Your task to perform on an android device: turn notification dots on Image 0: 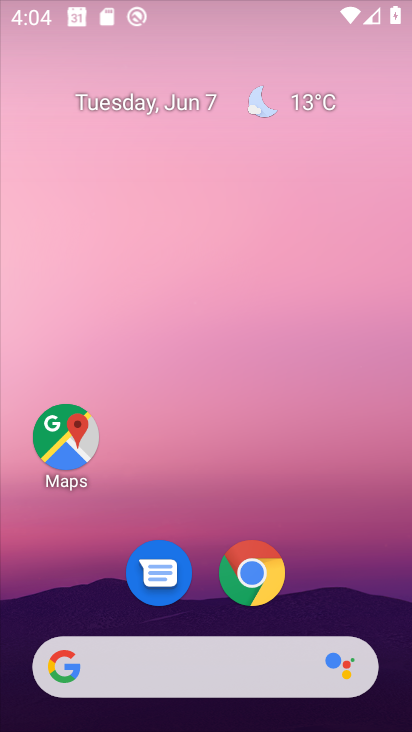
Step 0: press home button
Your task to perform on an android device: turn notification dots on Image 1: 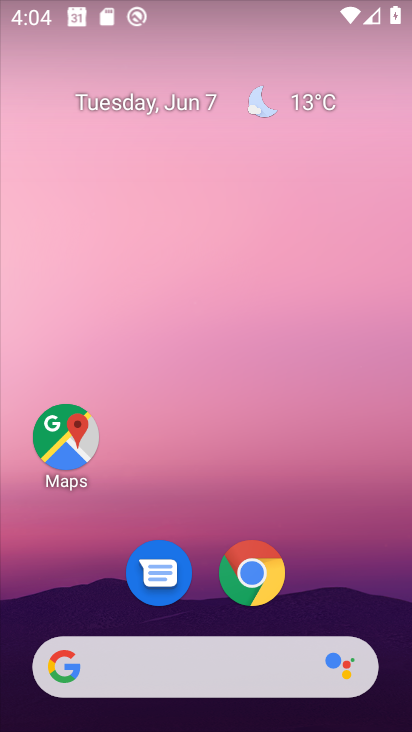
Step 1: drag from (408, 715) to (384, 271)
Your task to perform on an android device: turn notification dots on Image 2: 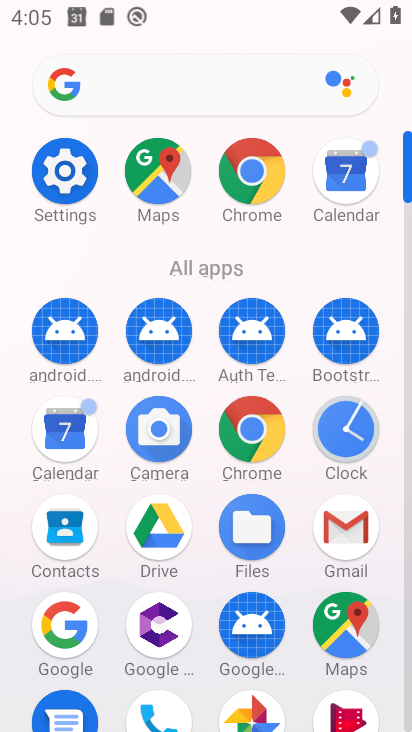
Step 2: click (53, 199)
Your task to perform on an android device: turn notification dots on Image 3: 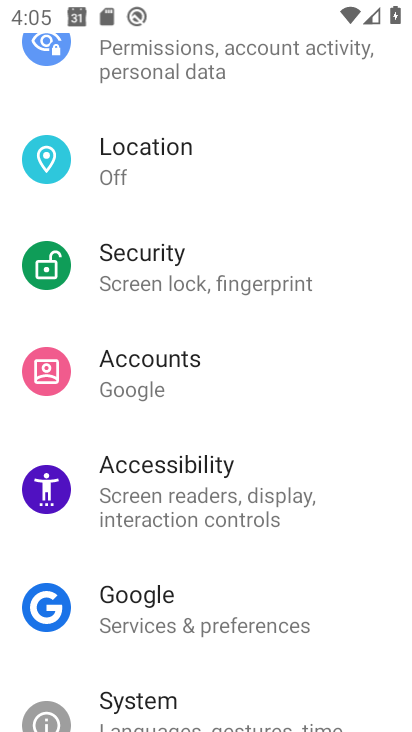
Step 3: drag from (223, 132) to (308, 684)
Your task to perform on an android device: turn notification dots on Image 4: 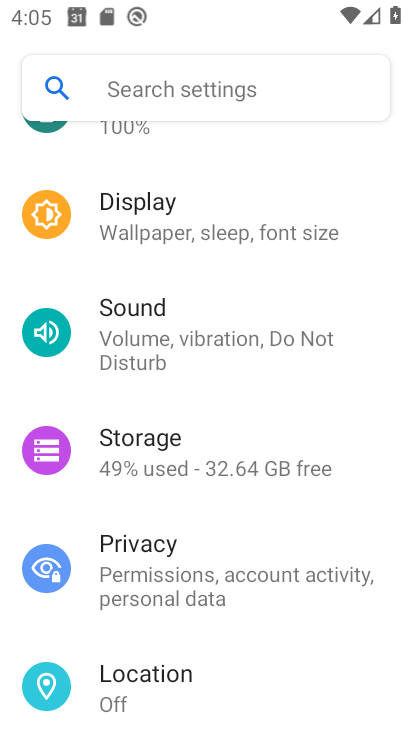
Step 4: drag from (178, 238) to (171, 724)
Your task to perform on an android device: turn notification dots on Image 5: 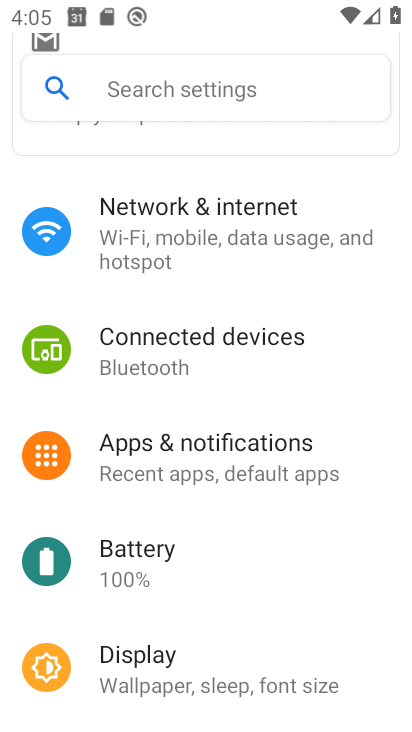
Step 5: click (150, 472)
Your task to perform on an android device: turn notification dots on Image 6: 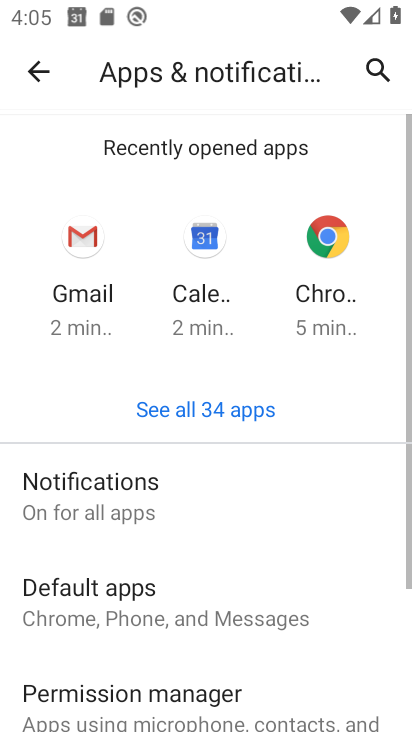
Step 6: click (153, 486)
Your task to perform on an android device: turn notification dots on Image 7: 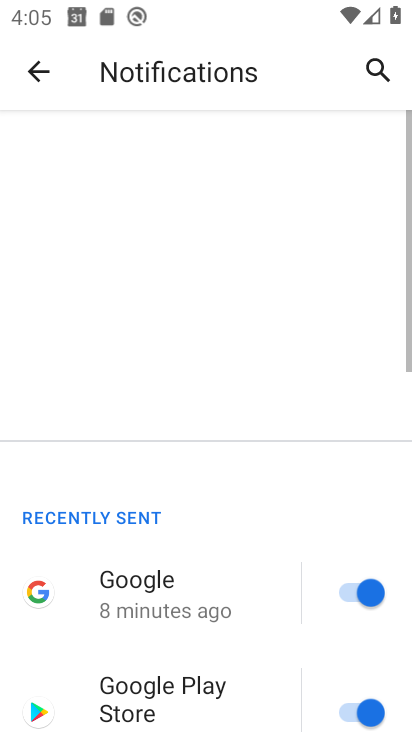
Step 7: drag from (222, 561) to (222, 83)
Your task to perform on an android device: turn notification dots on Image 8: 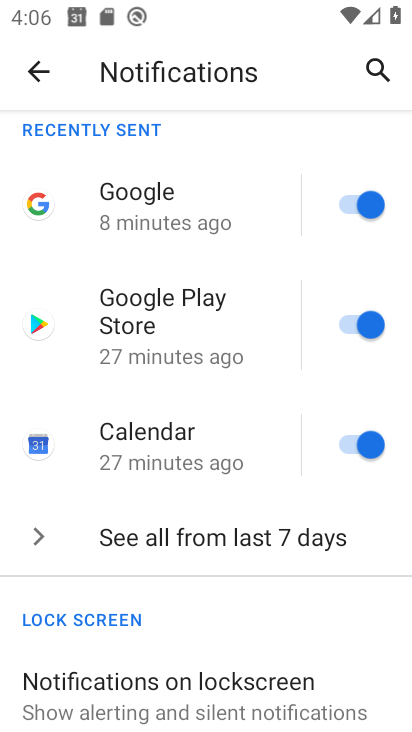
Step 8: drag from (241, 700) to (164, 218)
Your task to perform on an android device: turn notification dots on Image 9: 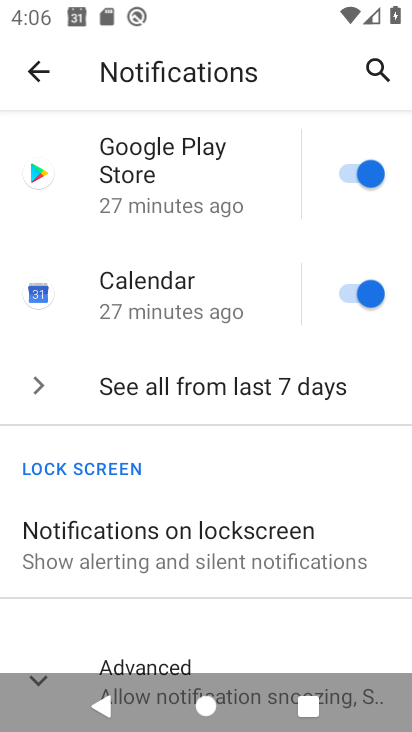
Step 9: click (171, 637)
Your task to perform on an android device: turn notification dots on Image 10: 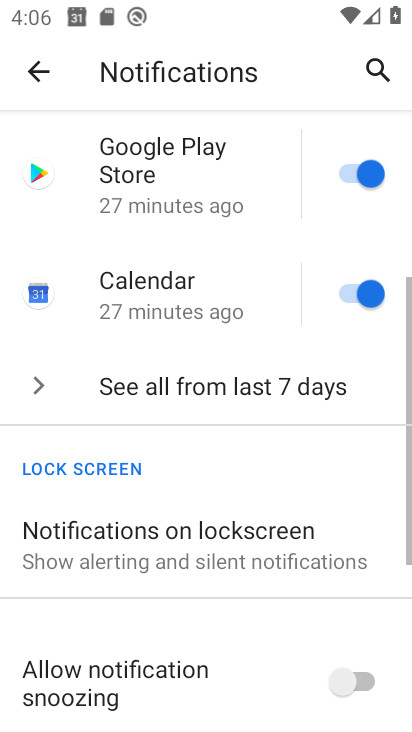
Step 10: task complete